Your task to perform on an android device: turn on notifications settings in the gmail app Image 0: 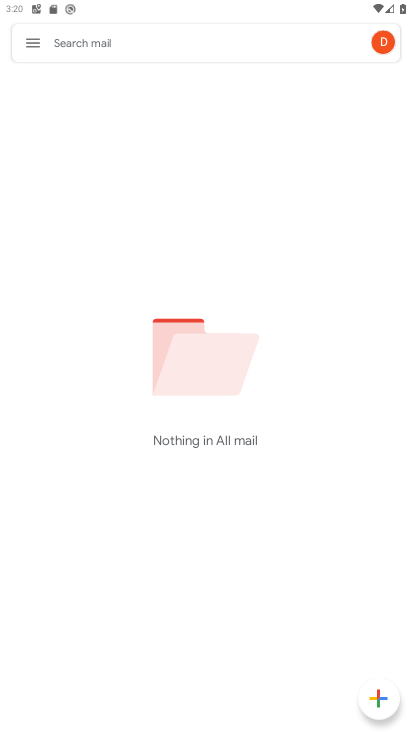
Step 0: press home button
Your task to perform on an android device: turn on notifications settings in the gmail app Image 1: 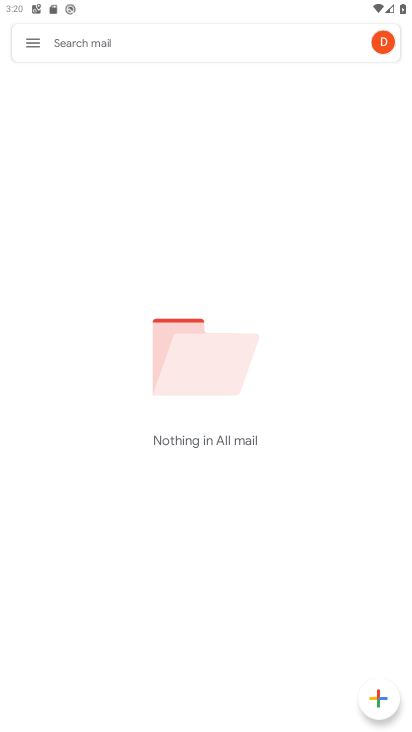
Step 1: press home button
Your task to perform on an android device: turn on notifications settings in the gmail app Image 2: 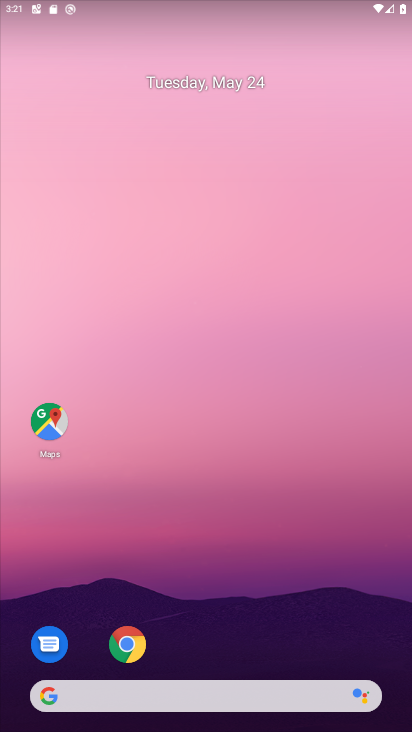
Step 2: drag from (361, 640) to (197, 104)
Your task to perform on an android device: turn on notifications settings in the gmail app Image 3: 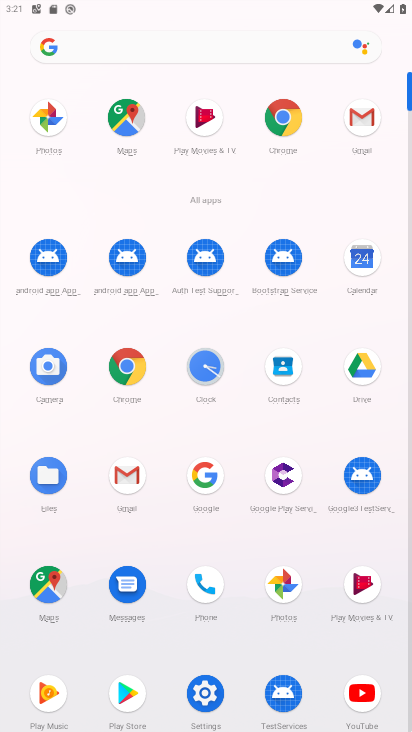
Step 3: click (348, 136)
Your task to perform on an android device: turn on notifications settings in the gmail app Image 4: 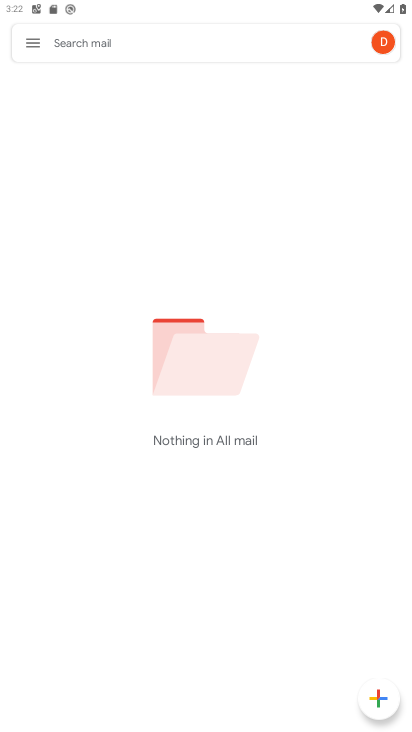
Step 4: click (23, 44)
Your task to perform on an android device: turn on notifications settings in the gmail app Image 5: 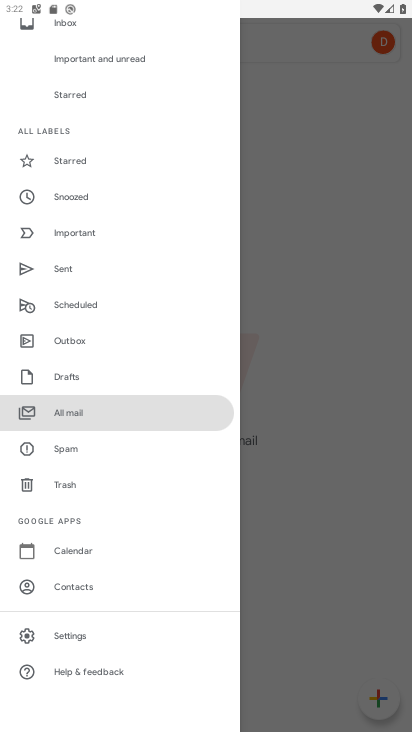
Step 5: click (111, 627)
Your task to perform on an android device: turn on notifications settings in the gmail app Image 6: 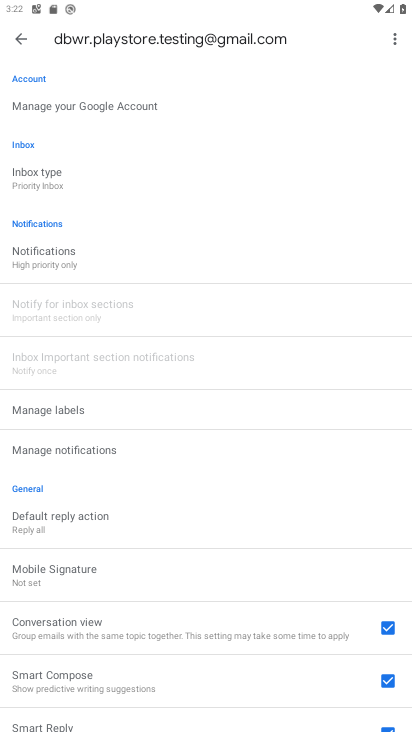
Step 6: click (145, 457)
Your task to perform on an android device: turn on notifications settings in the gmail app Image 7: 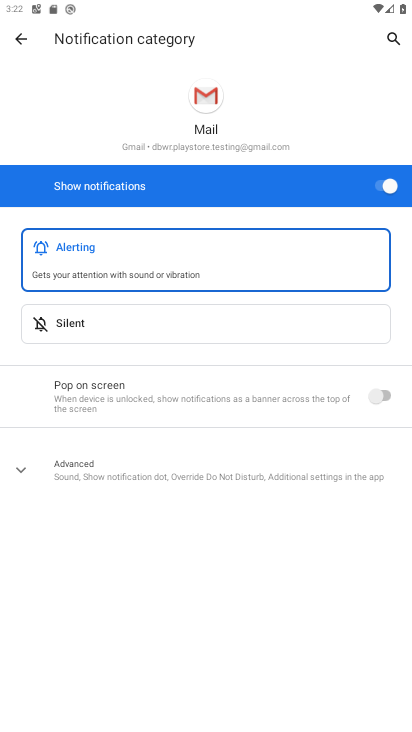
Step 7: click (379, 165)
Your task to perform on an android device: turn on notifications settings in the gmail app Image 8: 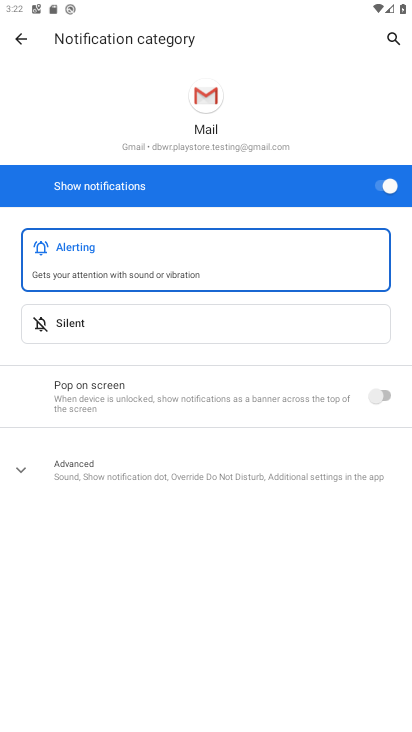
Step 8: task complete